Your task to perform on an android device: Open settings on Google Maps Image 0: 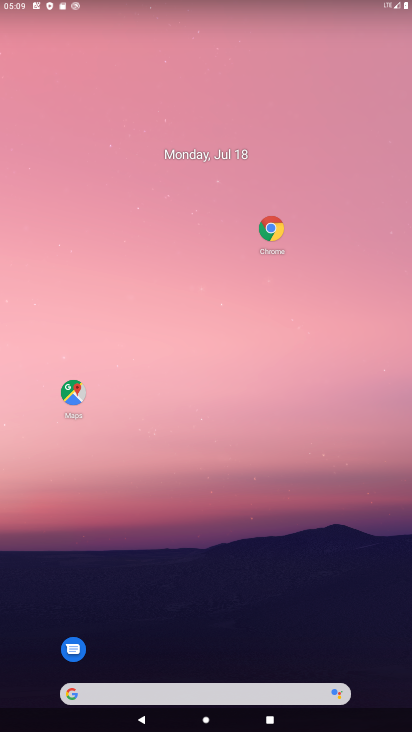
Step 0: click (74, 402)
Your task to perform on an android device: Open settings on Google Maps Image 1: 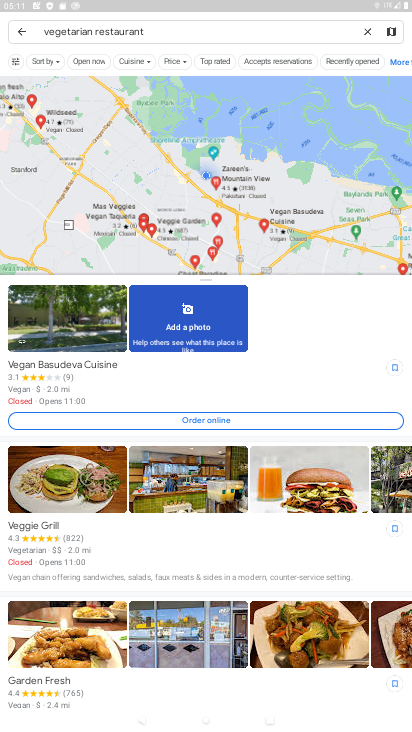
Step 1: click (24, 26)
Your task to perform on an android device: Open settings on Google Maps Image 2: 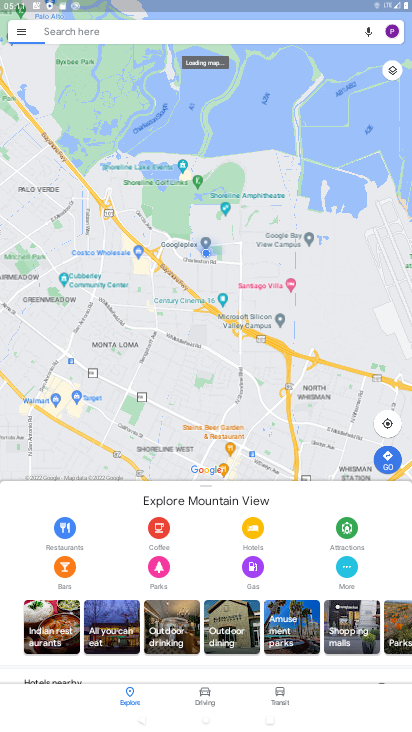
Step 2: click (19, 40)
Your task to perform on an android device: Open settings on Google Maps Image 3: 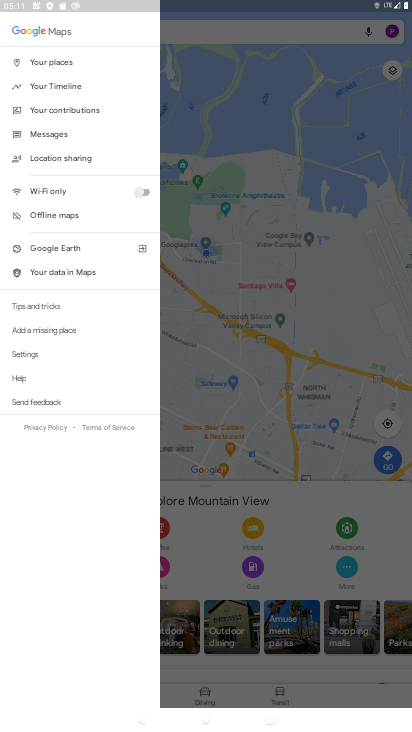
Step 3: click (55, 354)
Your task to perform on an android device: Open settings on Google Maps Image 4: 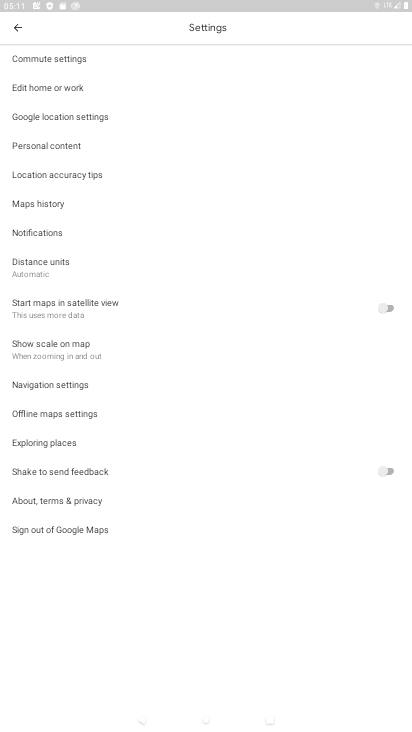
Step 4: task complete